Your task to perform on an android device: turn on sleep mode Image 0: 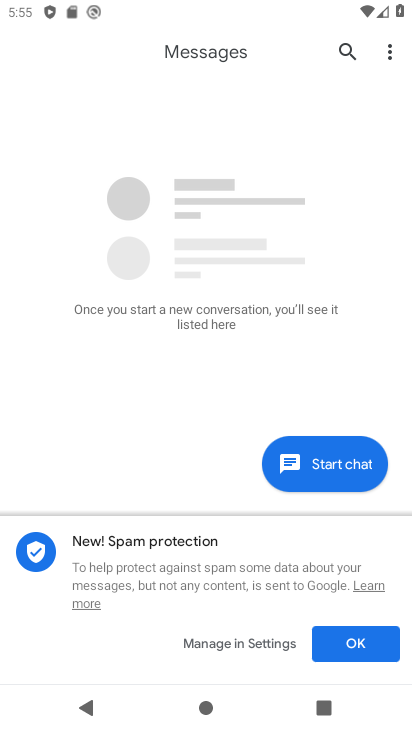
Step 0: drag from (217, 611) to (286, 277)
Your task to perform on an android device: turn on sleep mode Image 1: 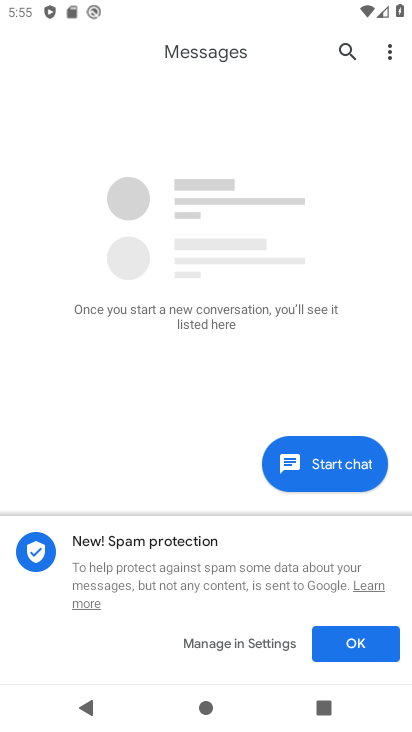
Step 1: press home button
Your task to perform on an android device: turn on sleep mode Image 2: 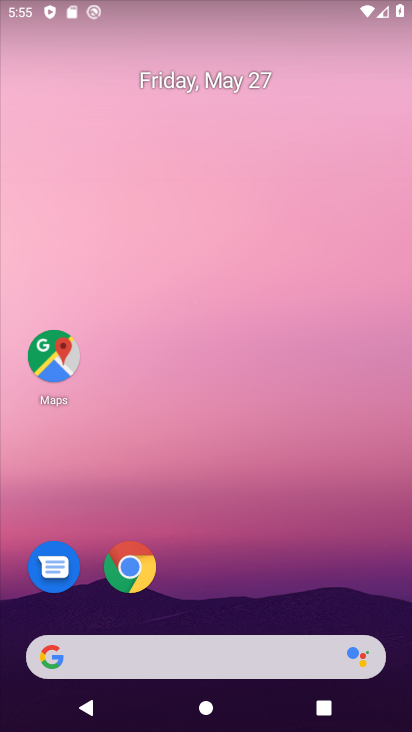
Step 2: drag from (197, 594) to (279, 71)
Your task to perform on an android device: turn on sleep mode Image 3: 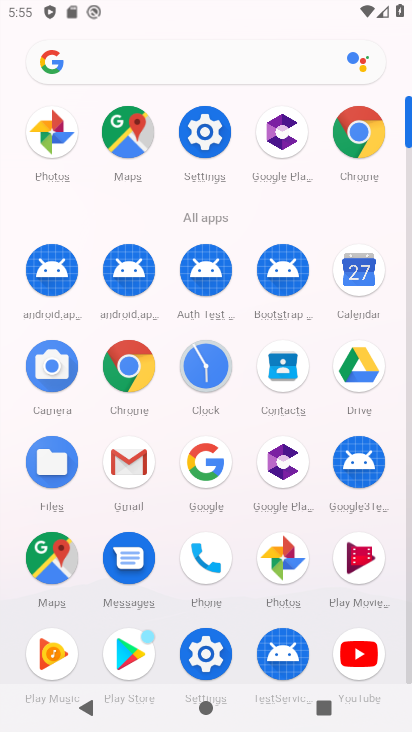
Step 3: click (199, 133)
Your task to perform on an android device: turn on sleep mode Image 4: 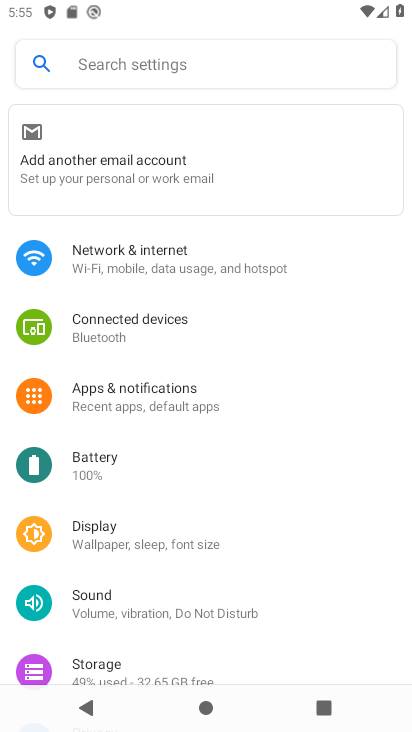
Step 4: task complete